Your task to perform on an android device: stop showing notifications on the lock screen Image 0: 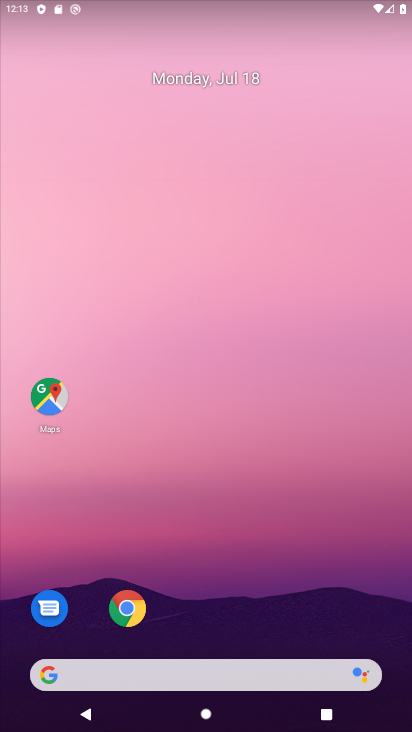
Step 0: drag from (245, 600) to (317, 42)
Your task to perform on an android device: stop showing notifications on the lock screen Image 1: 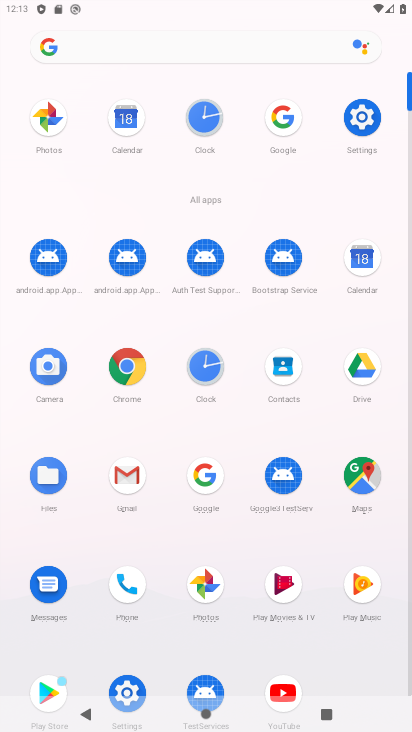
Step 1: click (372, 121)
Your task to perform on an android device: stop showing notifications on the lock screen Image 2: 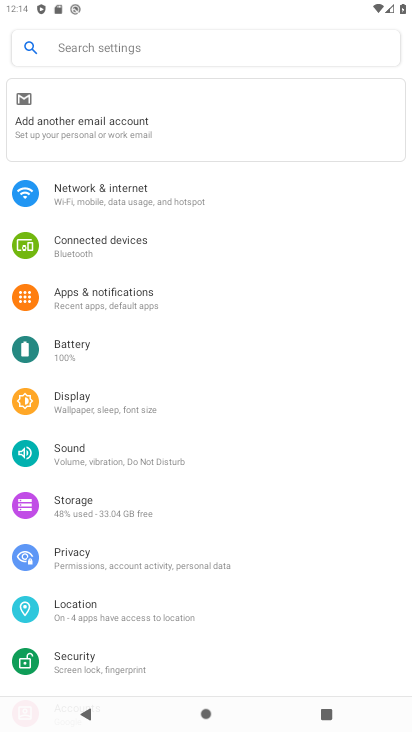
Step 2: click (119, 308)
Your task to perform on an android device: stop showing notifications on the lock screen Image 3: 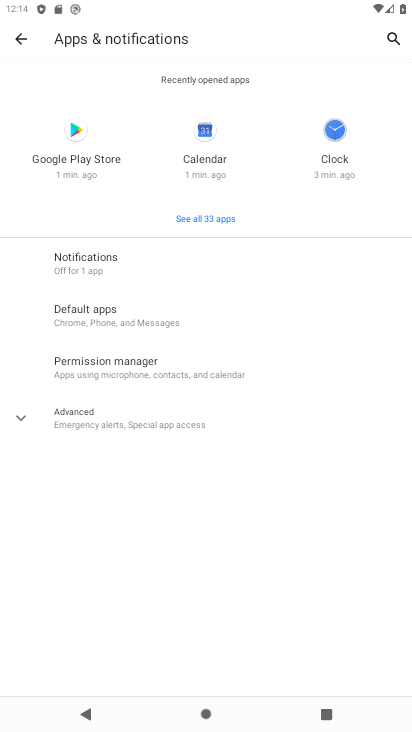
Step 3: click (91, 274)
Your task to perform on an android device: stop showing notifications on the lock screen Image 4: 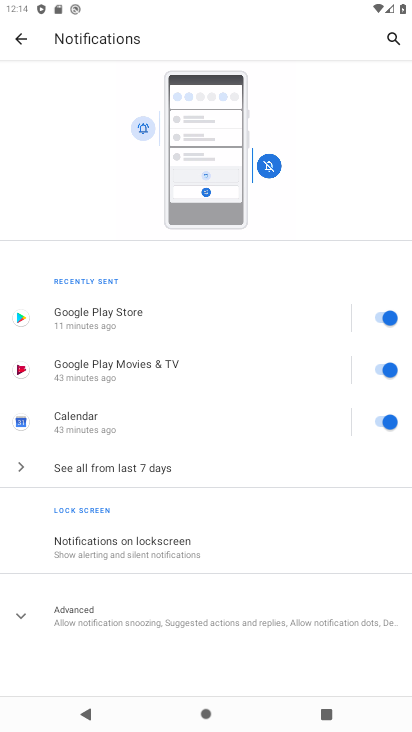
Step 4: click (161, 536)
Your task to perform on an android device: stop showing notifications on the lock screen Image 5: 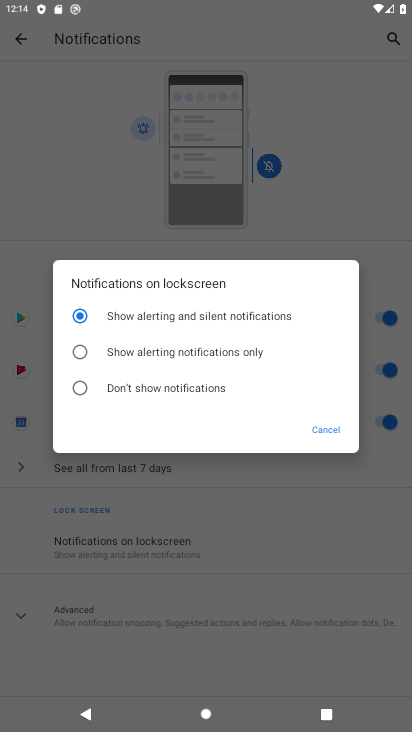
Step 5: click (102, 354)
Your task to perform on an android device: stop showing notifications on the lock screen Image 6: 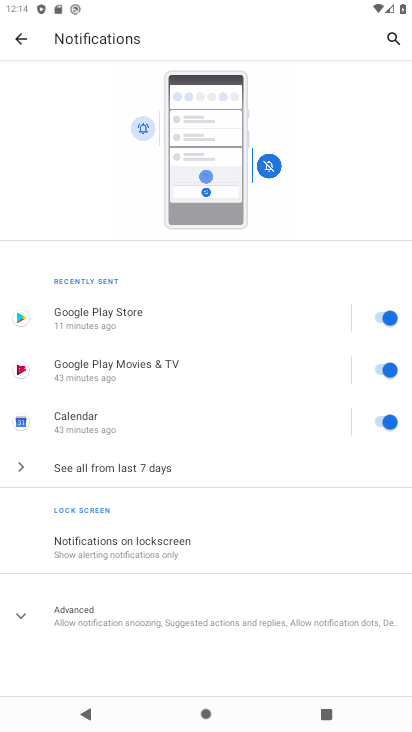
Step 6: task complete